Your task to perform on an android device: Go to eBay Image 0: 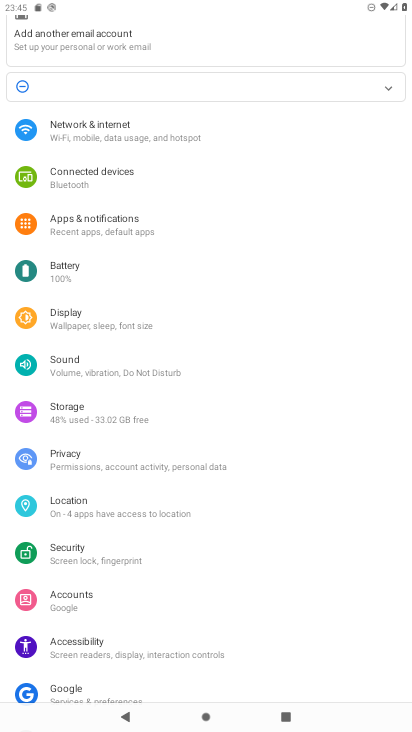
Step 0: press home button
Your task to perform on an android device: Go to eBay Image 1: 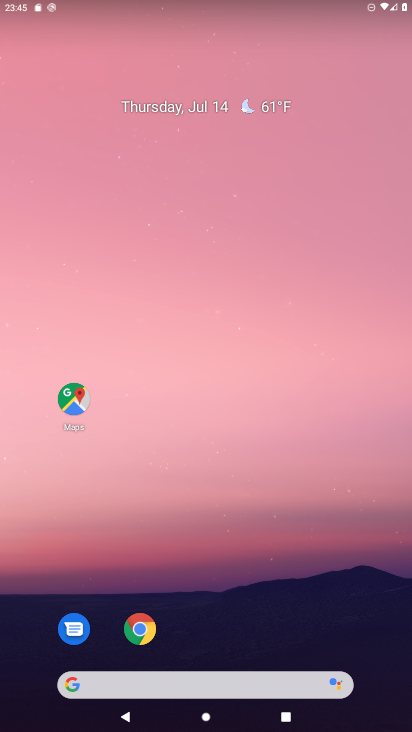
Step 1: click (139, 622)
Your task to perform on an android device: Go to eBay Image 2: 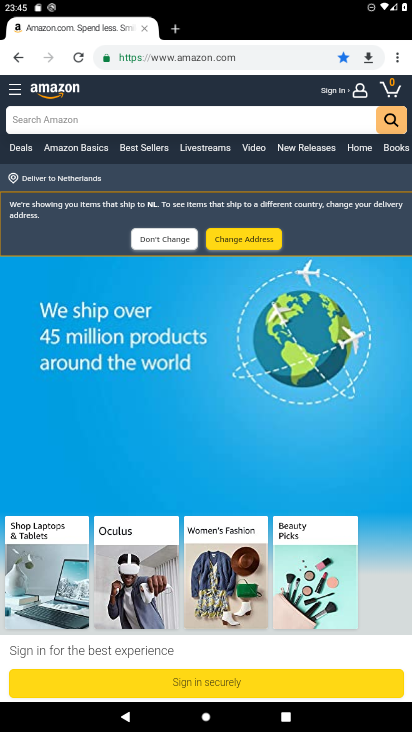
Step 2: click (169, 30)
Your task to perform on an android device: Go to eBay Image 3: 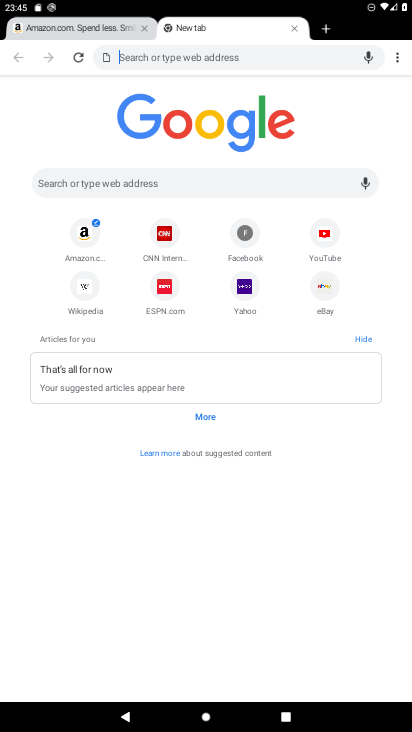
Step 3: click (328, 286)
Your task to perform on an android device: Go to eBay Image 4: 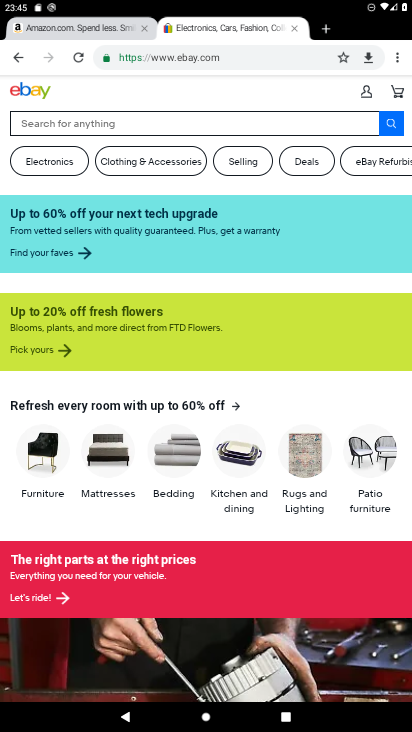
Step 4: task complete